Your task to perform on an android device: turn off javascript in the chrome app Image 0: 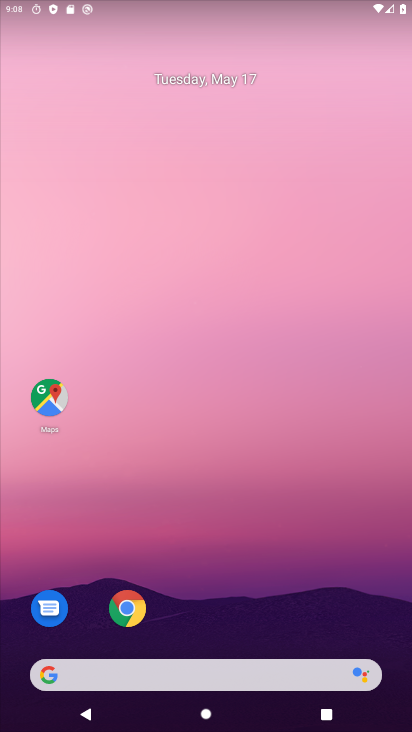
Step 0: drag from (308, 579) to (312, 157)
Your task to perform on an android device: turn off javascript in the chrome app Image 1: 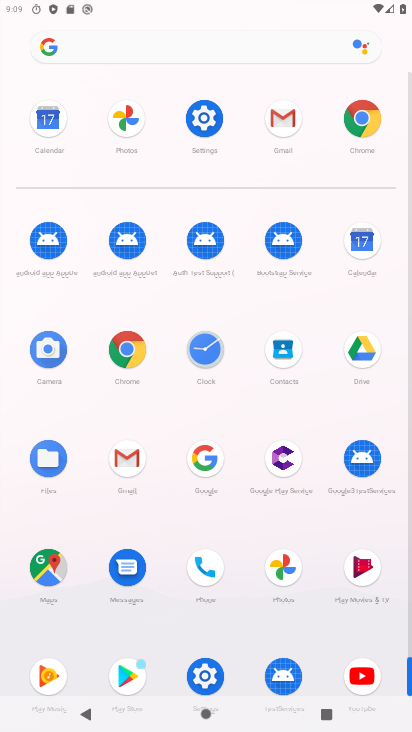
Step 1: click (126, 351)
Your task to perform on an android device: turn off javascript in the chrome app Image 2: 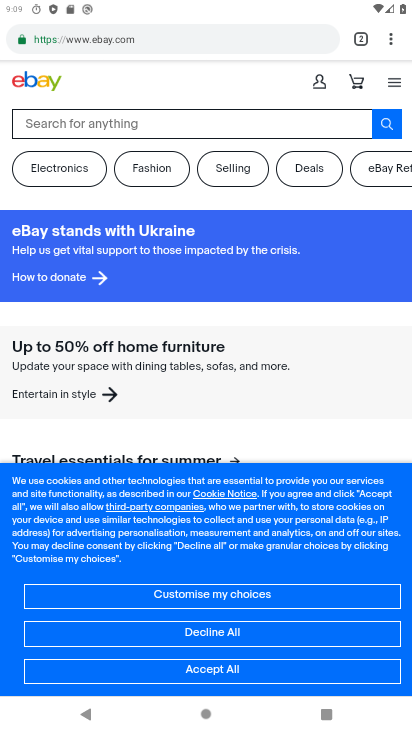
Step 2: drag from (397, 32) to (268, 471)
Your task to perform on an android device: turn off javascript in the chrome app Image 3: 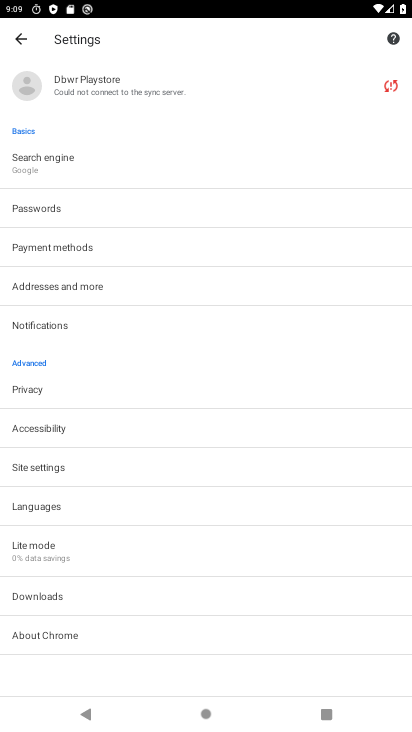
Step 3: click (68, 471)
Your task to perform on an android device: turn off javascript in the chrome app Image 4: 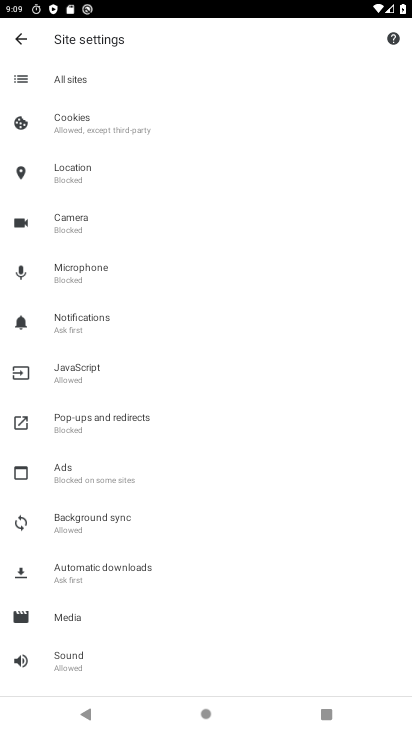
Step 4: click (96, 359)
Your task to perform on an android device: turn off javascript in the chrome app Image 5: 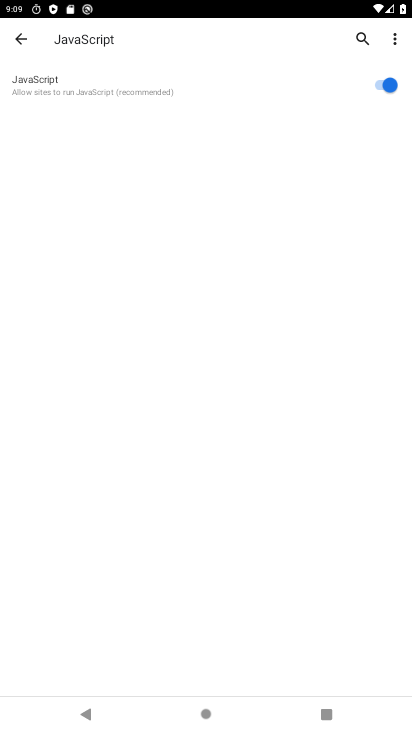
Step 5: click (382, 80)
Your task to perform on an android device: turn off javascript in the chrome app Image 6: 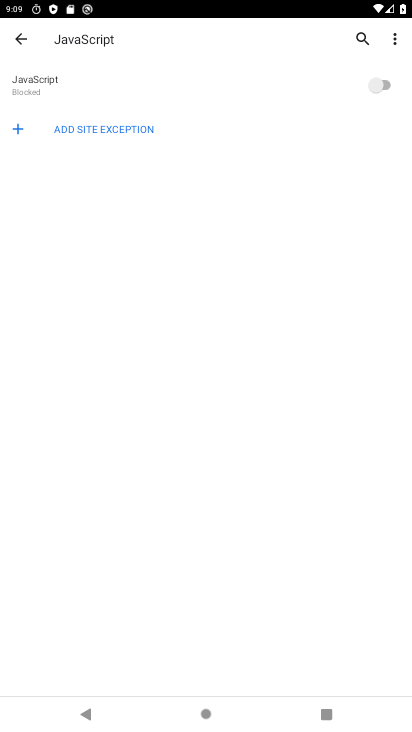
Step 6: task complete